Your task to perform on an android device: empty trash in google photos Image 0: 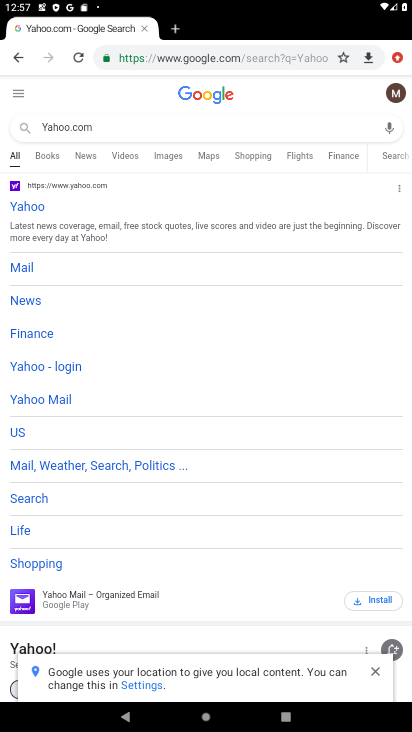
Step 0: press home button
Your task to perform on an android device: empty trash in google photos Image 1: 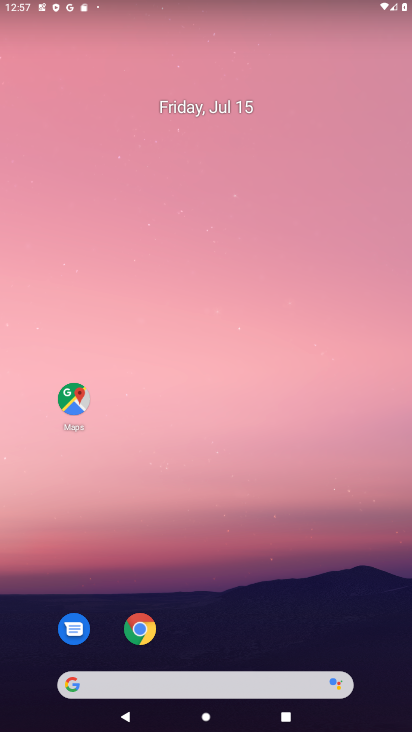
Step 1: drag from (383, 711) to (379, 152)
Your task to perform on an android device: empty trash in google photos Image 2: 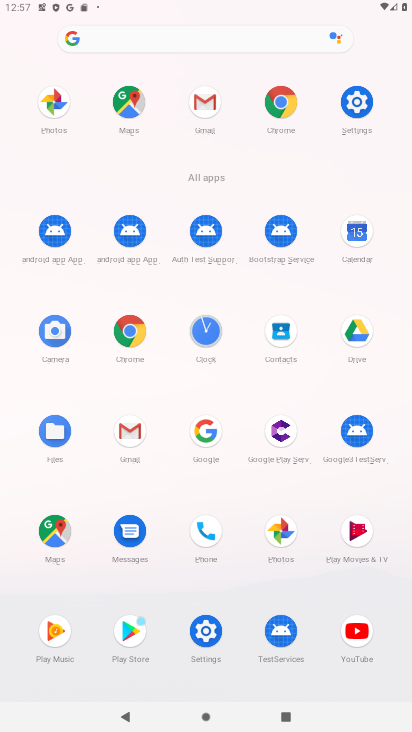
Step 2: click (289, 531)
Your task to perform on an android device: empty trash in google photos Image 3: 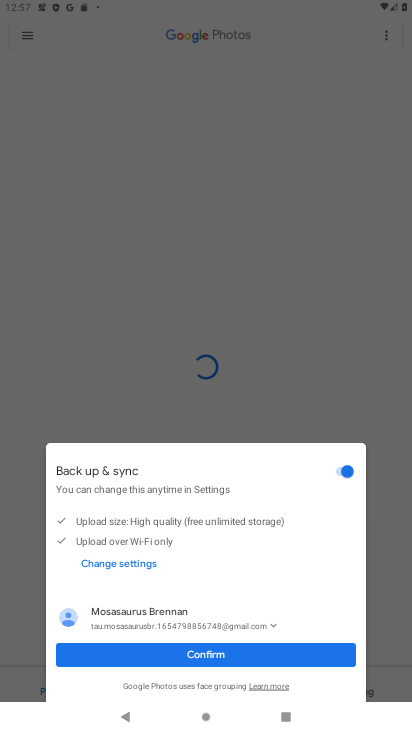
Step 3: click (250, 654)
Your task to perform on an android device: empty trash in google photos Image 4: 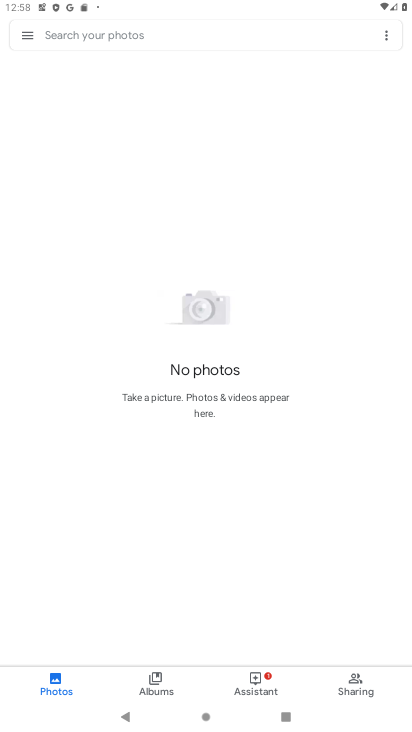
Step 4: click (23, 35)
Your task to perform on an android device: empty trash in google photos Image 5: 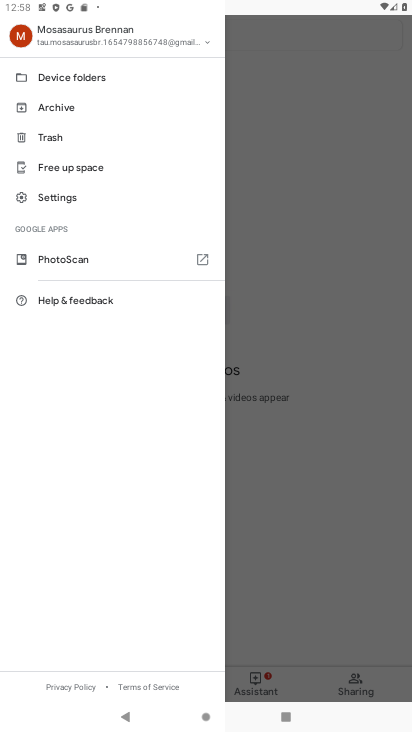
Step 5: click (48, 136)
Your task to perform on an android device: empty trash in google photos Image 6: 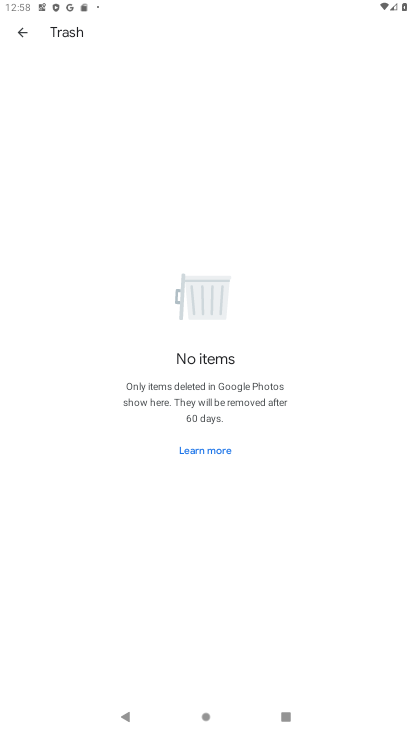
Step 6: task complete